Your task to perform on an android device: toggle translation in the chrome app Image 0: 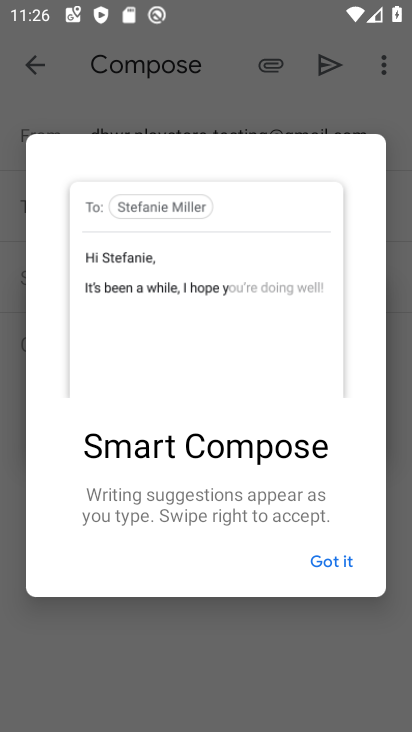
Step 0: press home button
Your task to perform on an android device: toggle translation in the chrome app Image 1: 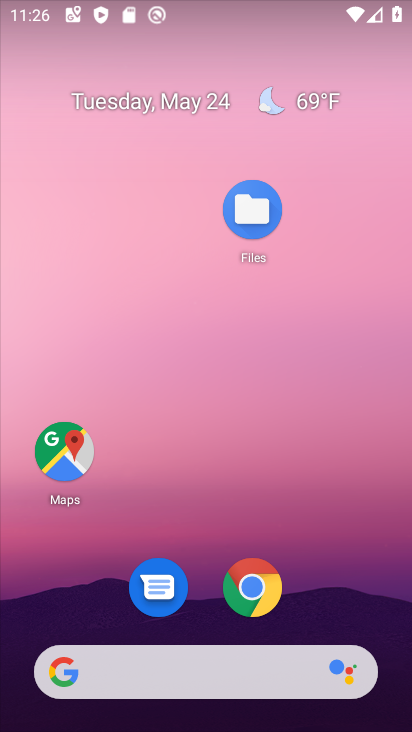
Step 1: click (256, 594)
Your task to perform on an android device: toggle translation in the chrome app Image 2: 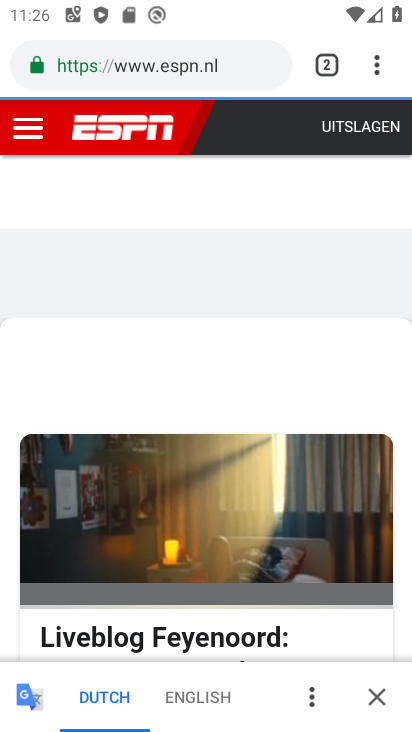
Step 2: click (380, 70)
Your task to perform on an android device: toggle translation in the chrome app Image 3: 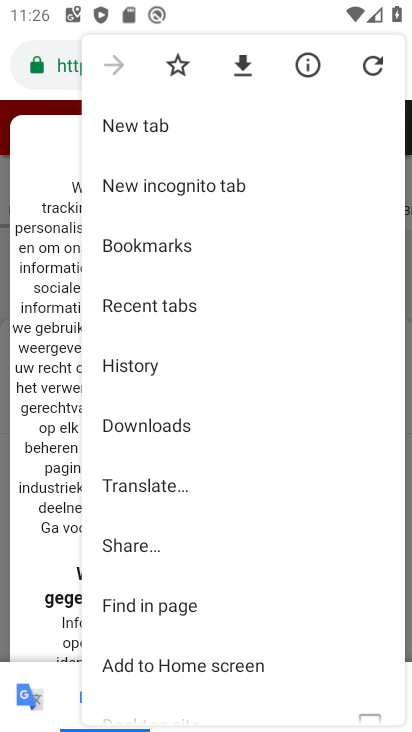
Step 3: drag from (162, 664) to (198, 167)
Your task to perform on an android device: toggle translation in the chrome app Image 4: 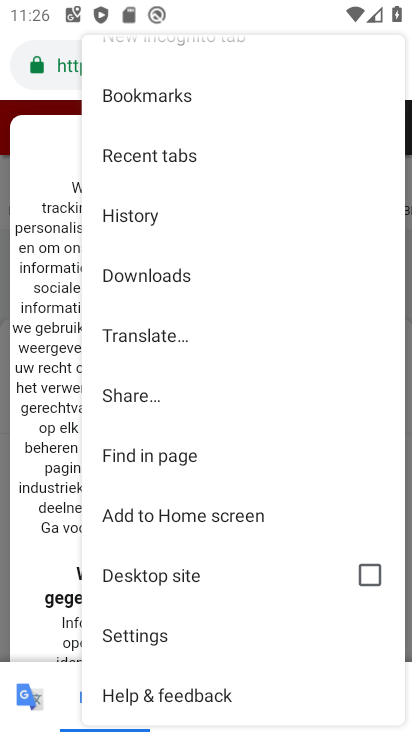
Step 4: click (142, 638)
Your task to perform on an android device: toggle translation in the chrome app Image 5: 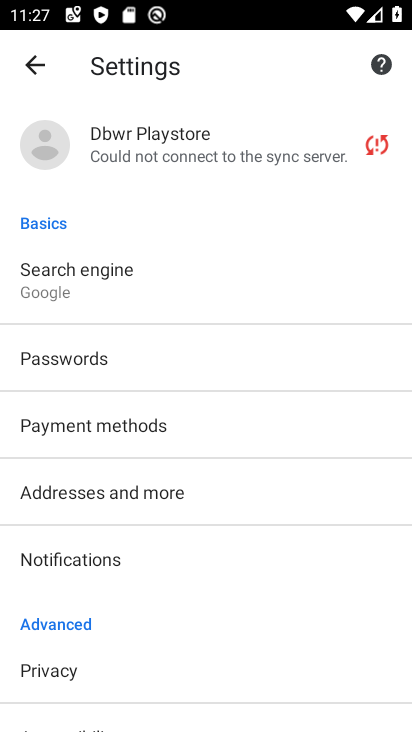
Step 5: drag from (142, 638) to (233, 301)
Your task to perform on an android device: toggle translation in the chrome app Image 6: 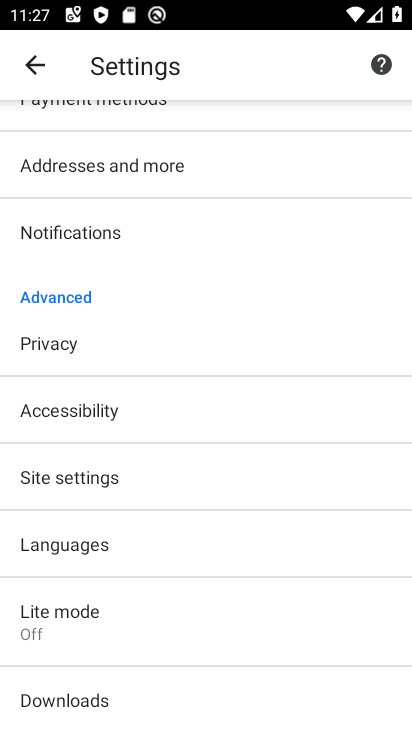
Step 6: click (74, 544)
Your task to perform on an android device: toggle translation in the chrome app Image 7: 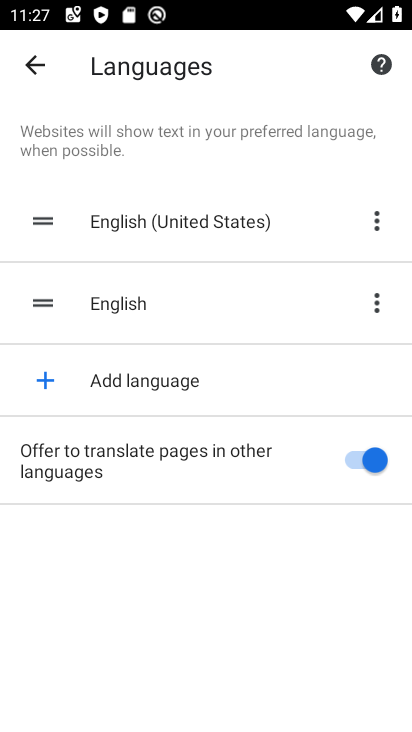
Step 7: click (376, 462)
Your task to perform on an android device: toggle translation in the chrome app Image 8: 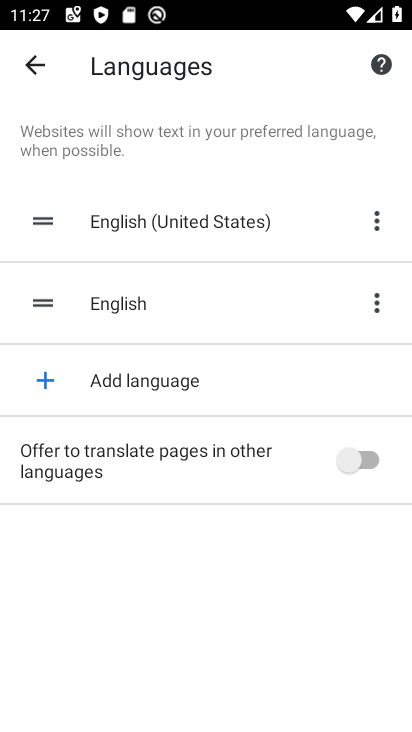
Step 8: task complete